Your task to perform on an android device: see tabs open on other devices in the chrome app Image 0: 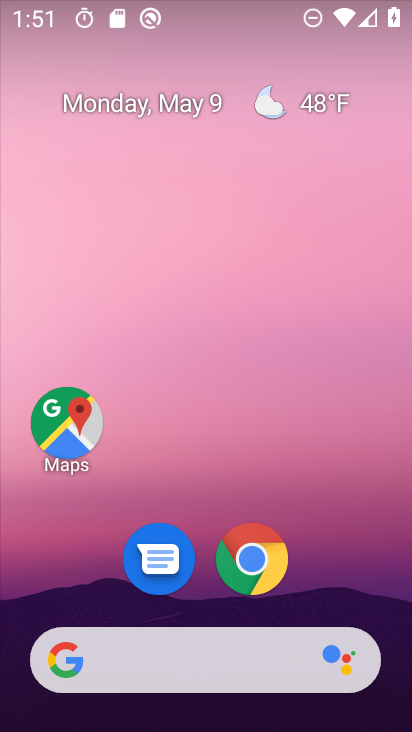
Step 0: drag from (207, 588) to (250, 157)
Your task to perform on an android device: see tabs open on other devices in the chrome app Image 1: 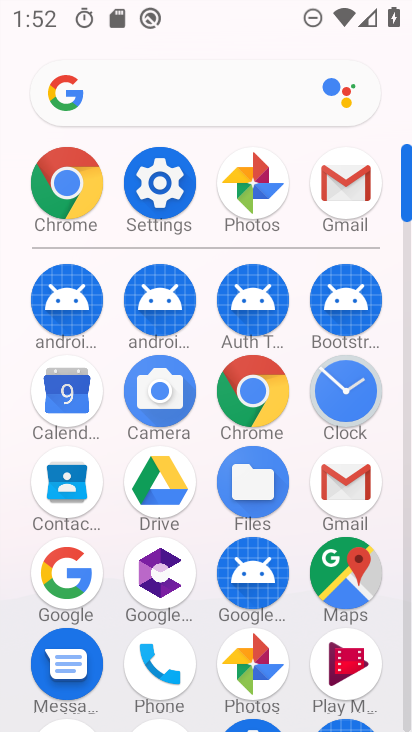
Step 1: drag from (206, 659) to (213, 219)
Your task to perform on an android device: see tabs open on other devices in the chrome app Image 2: 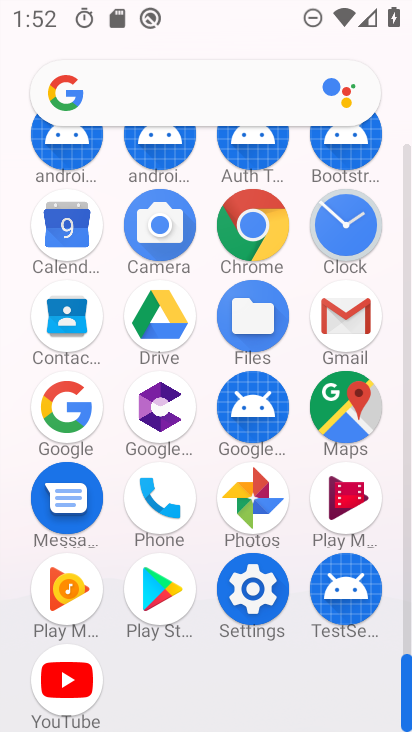
Step 2: click (240, 225)
Your task to perform on an android device: see tabs open on other devices in the chrome app Image 3: 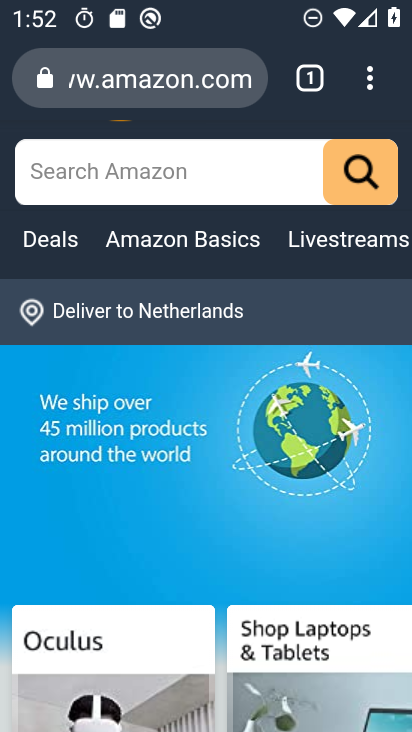
Step 3: task complete